Your task to perform on an android device: find snoozed emails in the gmail app Image 0: 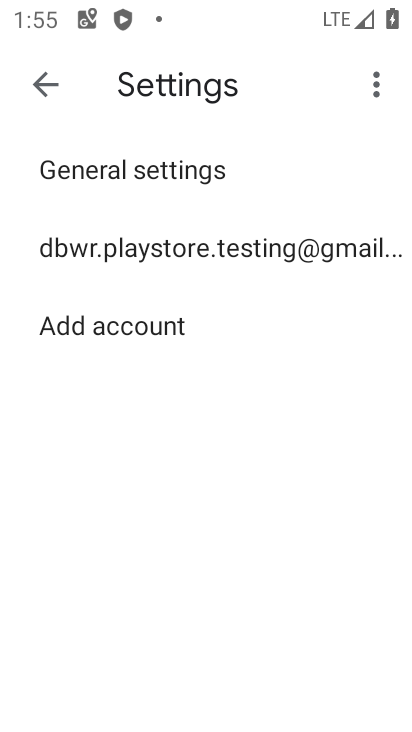
Step 0: press home button
Your task to perform on an android device: find snoozed emails in the gmail app Image 1: 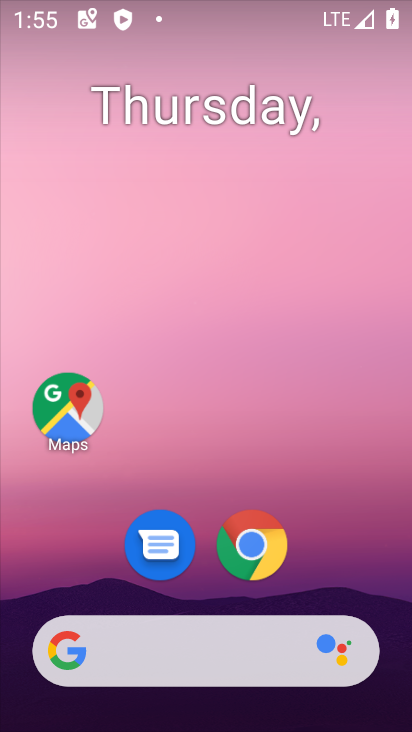
Step 1: drag from (215, 720) to (224, 73)
Your task to perform on an android device: find snoozed emails in the gmail app Image 2: 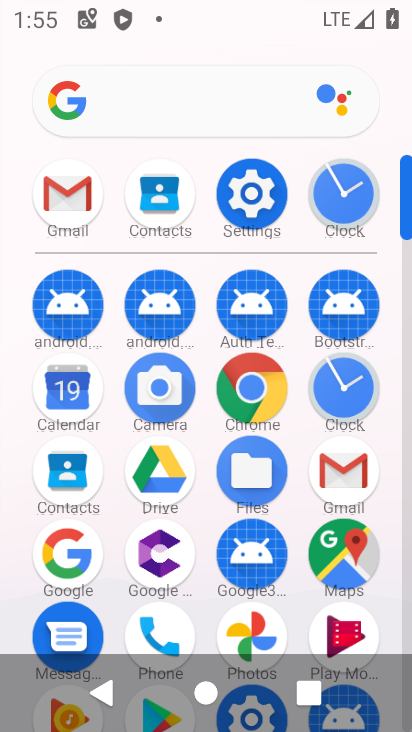
Step 2: click (351, 468)
Your task to perform on an android device: find snoozed emails in the gmail app Image 3: 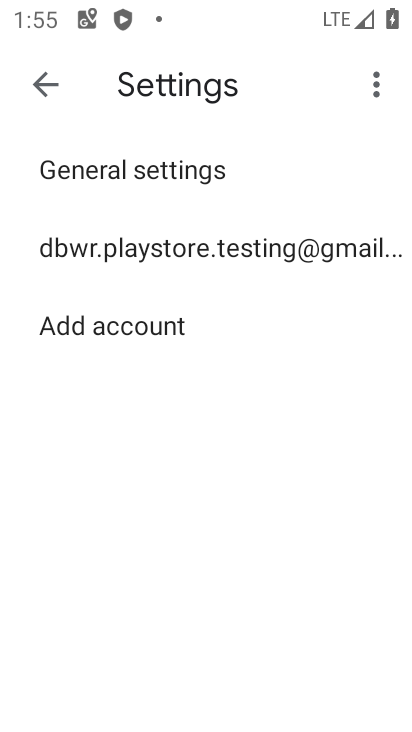
Step 3: click (80, 233)
Your task to perform on an android device: find snoozed emails in the gmail app Image 4: 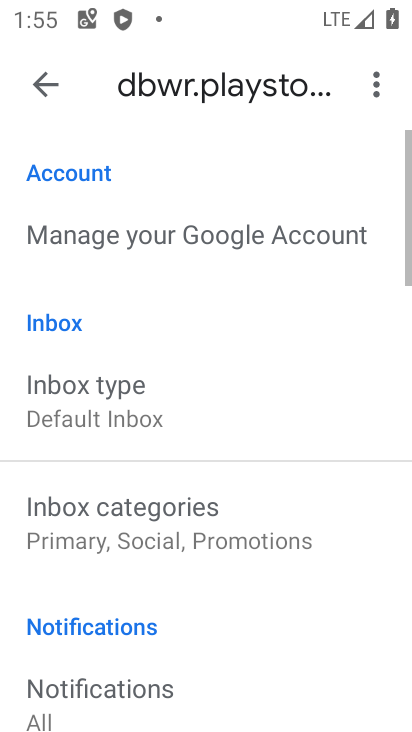
Step 4: click (54, 75)
Your task to perform on an android device: find snoozed emails in the gmail app Image 5: 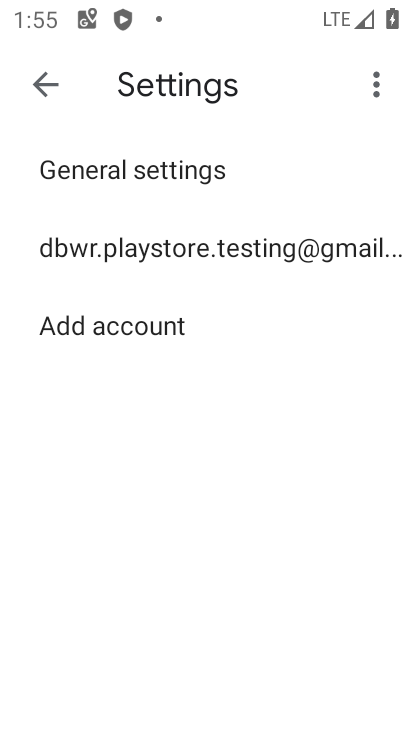
Step 5: click (50, 85)
Your task to perform on an android device: find snoozed emails in the gmail app Image 6: 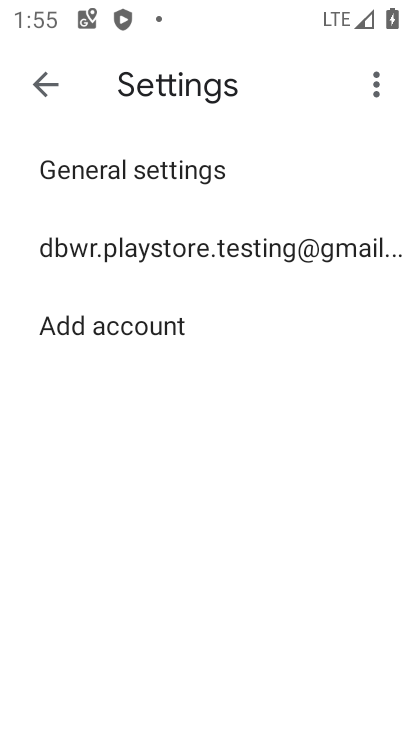
Step 6: click (40, 80)
Your task to perform on an android device: find snoozed emails in the gmail app Image 7: 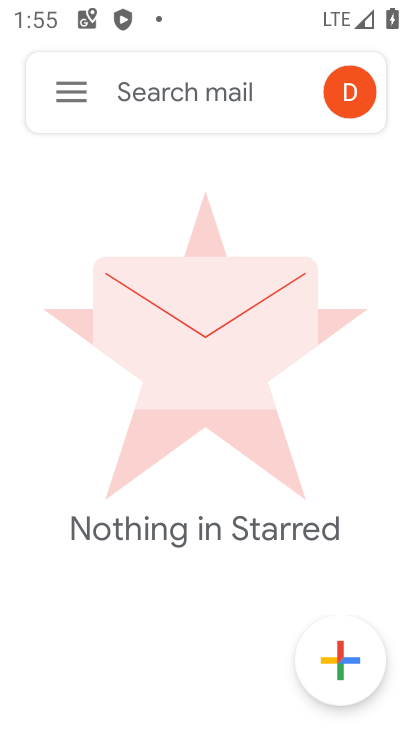
Step 7: click (63, 86)
Your task to perform on an android device: find snoozed emails in the gmail app Image 8: 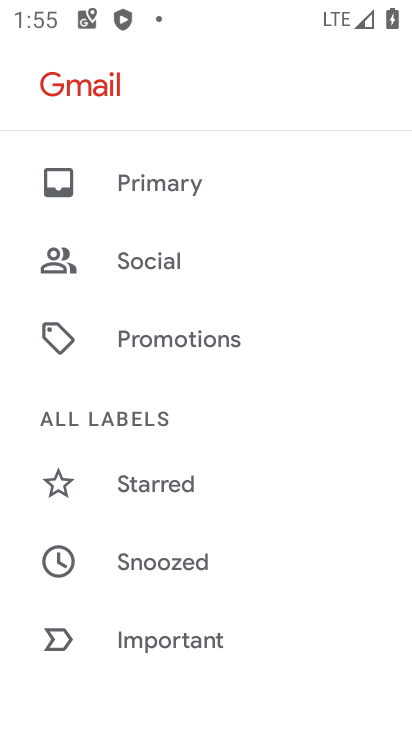
Step 8: click (196, 563)
Your task to perform on an android device: find snoozed emails in the gmail app Image 9: 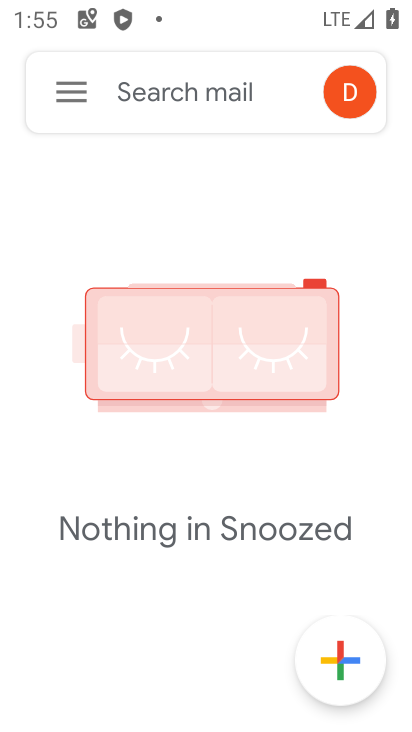
Step 9: task complete